Your task to perform on an android device: clear all cookies in the chrome app Image 0: 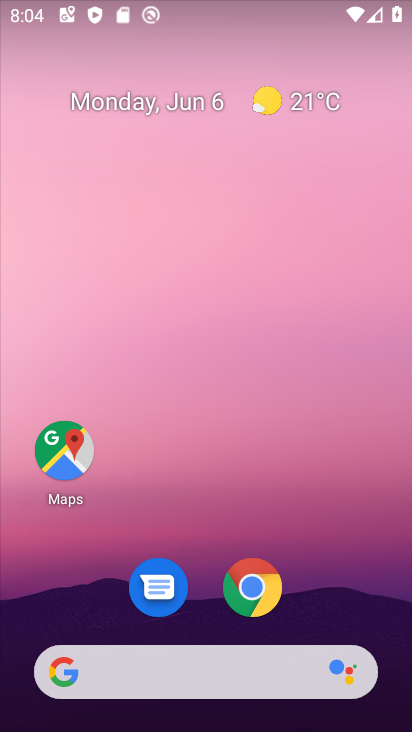
Step 0: click (266, 593)
Your task to perform on an android device: clear all cookies in the chrome app Image 1: 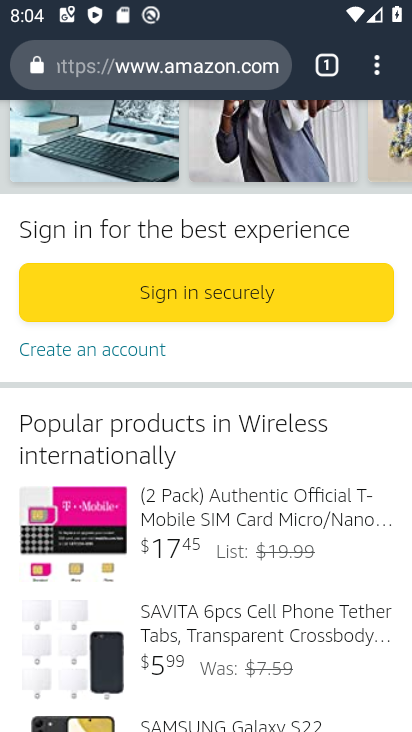
Step 1: click (380, 66)
Your task to perform on an android device: clear all cookies in the chrome app Image 2: 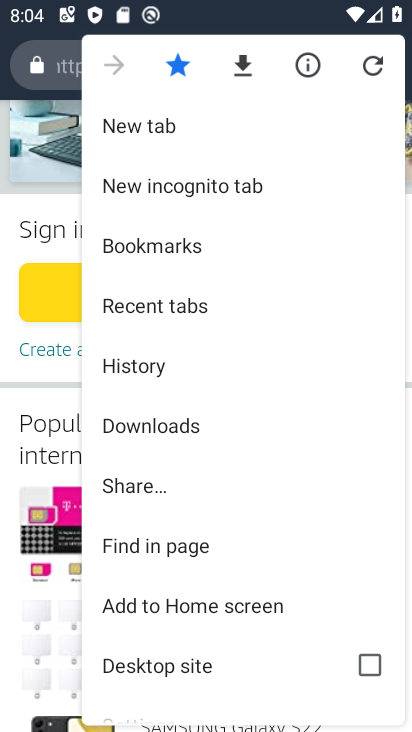
Step 2: click (169, 368)
Your task to perform on an android device: clear all cookies in the chrome app Image 3: 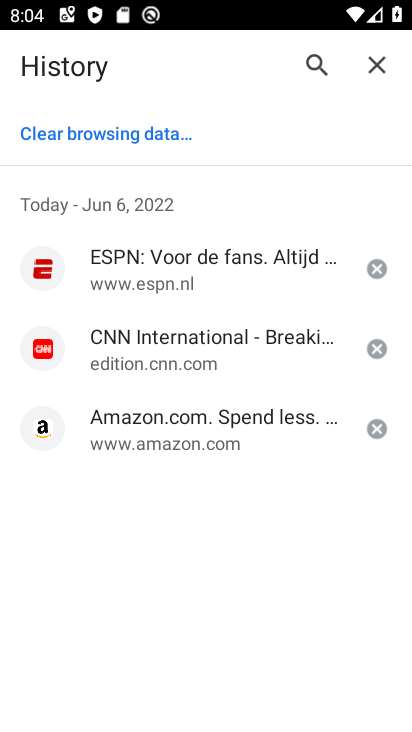
Step 3: click (130, 142)
Your task to perform on an android device: clear all cookies in the chrome app Image 4: 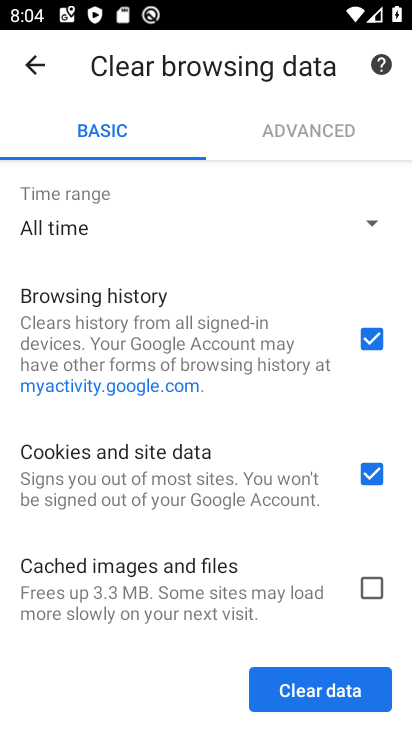
Step 4: click (344, 695)
Your task to perform on an android device: clear all cookies in the chrome app Image 5: 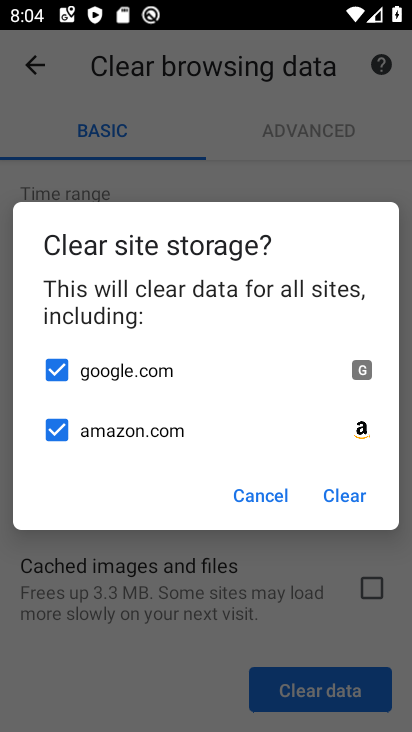
Step 5: click (354, 496)
Your task to perform on an android device: clear all cookies in the chrome app Image 6: 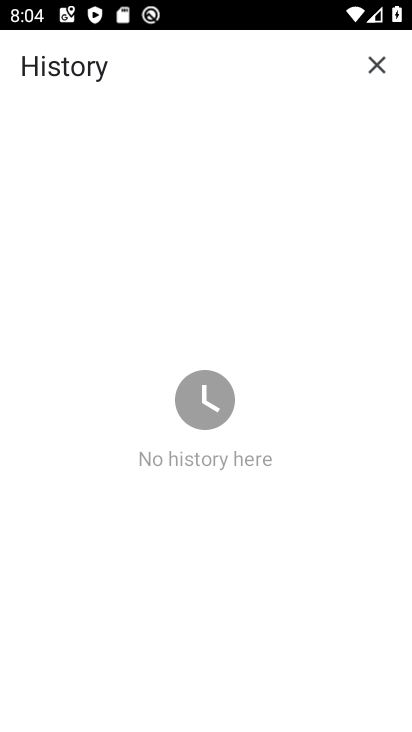
Step 6: task complete